Your task to perform on an android device: stop showing notifications on the lock screen Image 0: 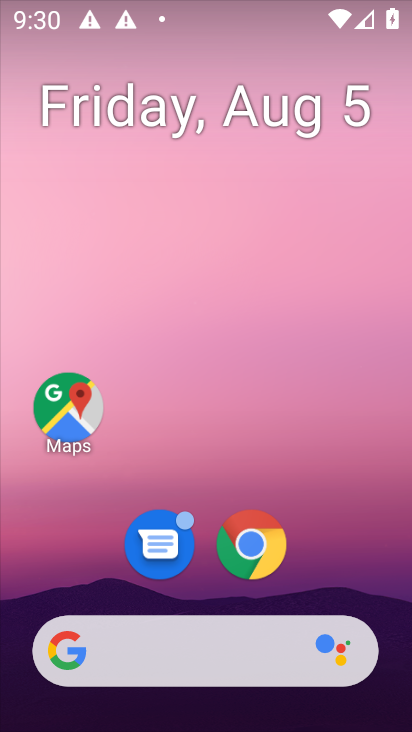
Step 0: drag from (295, 367) to (260, 78)
Your task to perform on an android device: stop showing notifications on the lock screen Image 1: 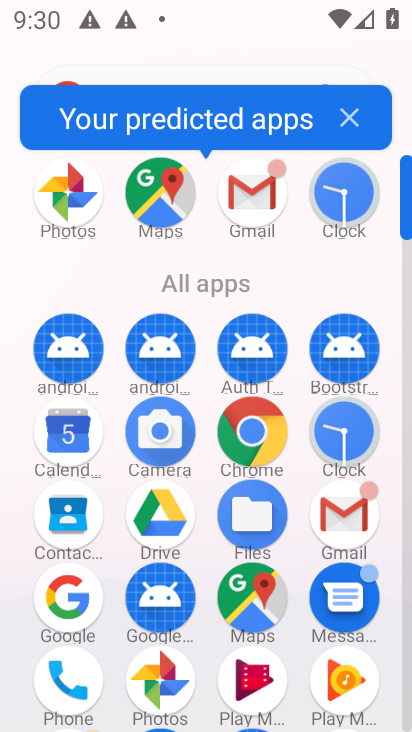
Step 1: drag from (227, 568) to (220, 303)
Your task to perform on an android device: stop showing notifications on the lock screen Image 2: 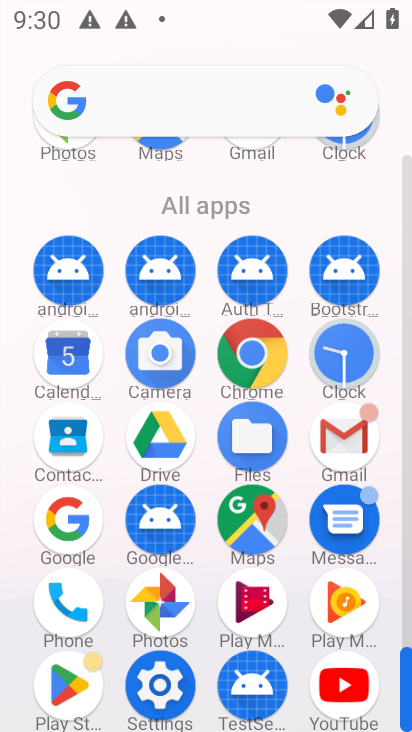
Step 2: click (161, 678)
Your task to perform on an android device: stop showing notifications on the lock screen Image 3: 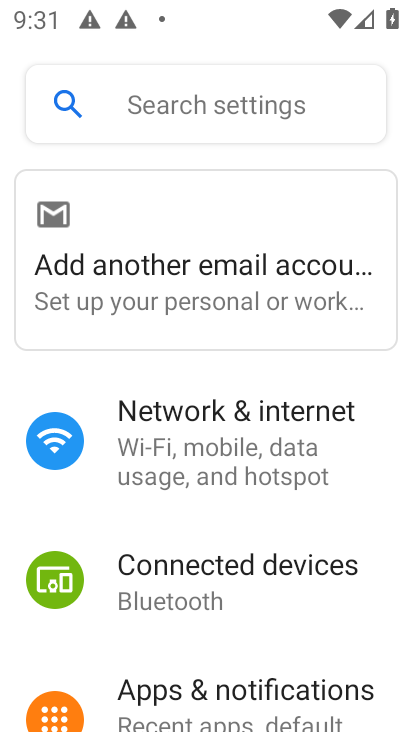
Step 3: task complete